Your task to perform on an android device: What's the weather? Image 0: 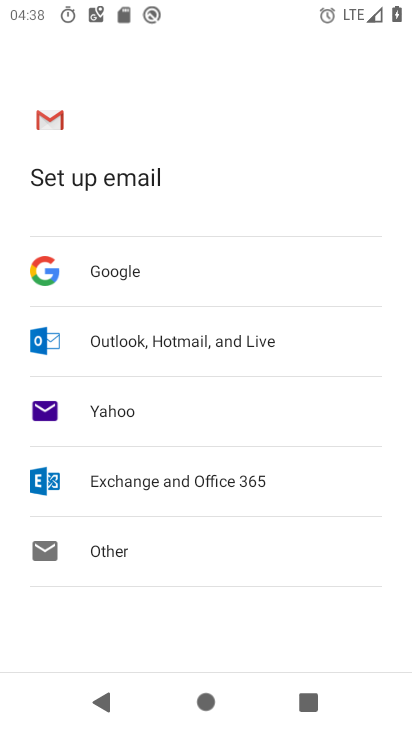
Step 0: press back button
Your task to perform on an android device: What's the weather? Image 1: 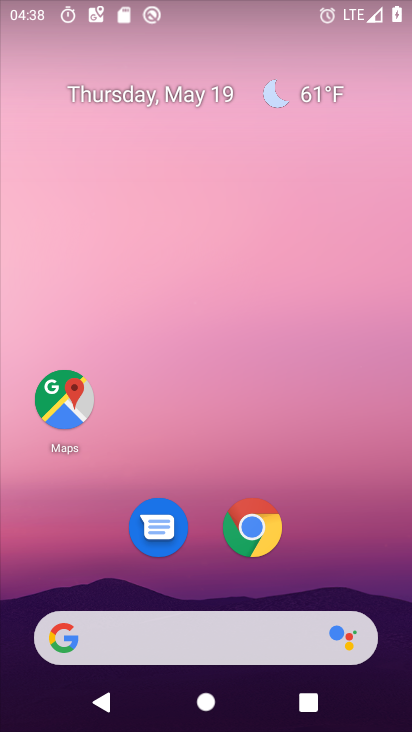
Step 1: drag from (173, 541) to (279, 42)
Your task to perform on an android device: What's the weather? Image 2: 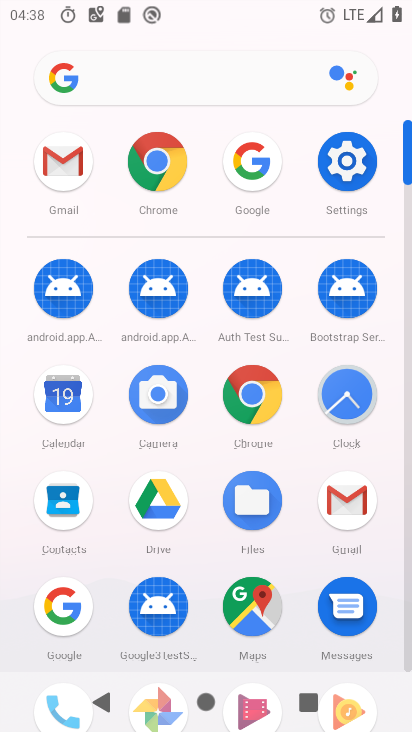
Step 2: click (74, 398)
Your task to perform on an android device: What's the weather? Image 3: 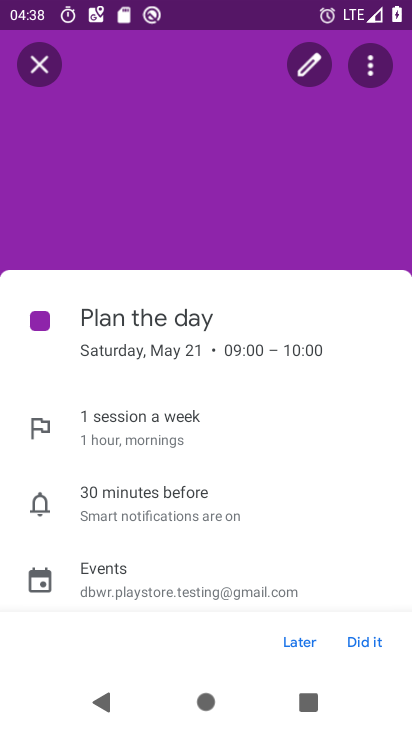
Step 3: press back button
Your task to perform on an android device: What's the weather? Image 4: 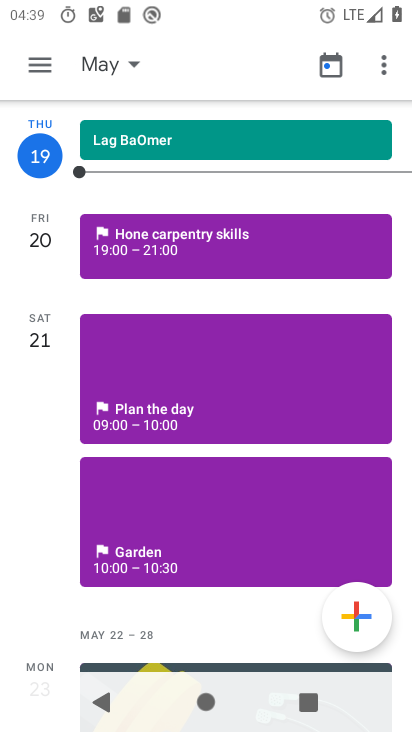
Step 4: press back button
Your task to perform on an android device: What's the weather? Image 5: 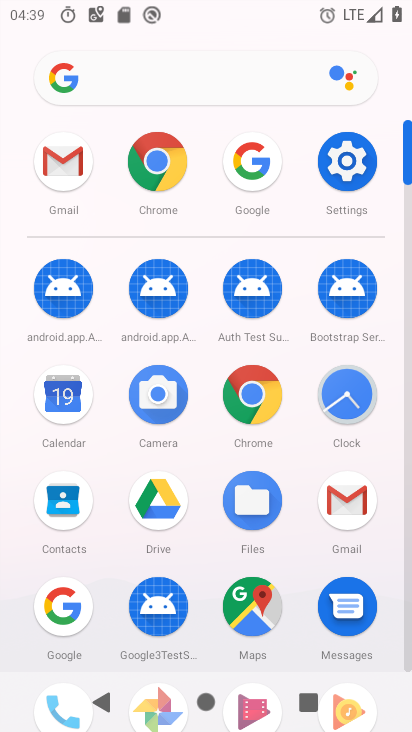
Step 5: click (186, 91)
Your task to perform on an android device: What's the weather? Image 6: 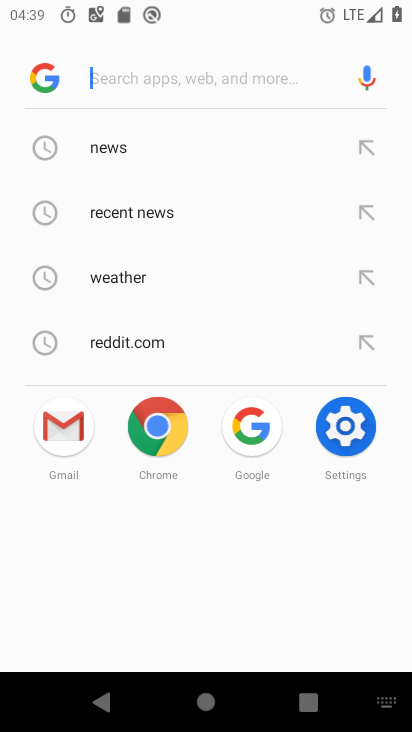
Step 6: click (130, 272)
Your task to perform on an android device: What's the weather? Image 7: 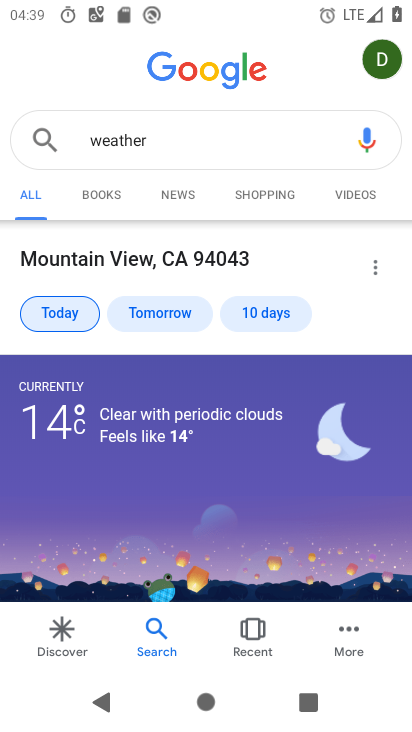
Step 7: task complete